Your task to perform on an android device: What's on my calendar tomorrow? Image 0: 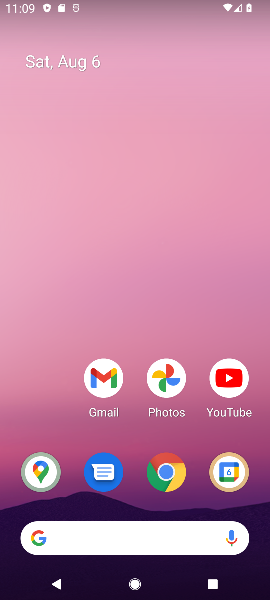
Step 0: drag from (166, 531) to (119, 180)
Your task to perform on an android device: What's on my calendar tomorrow? Image 1: 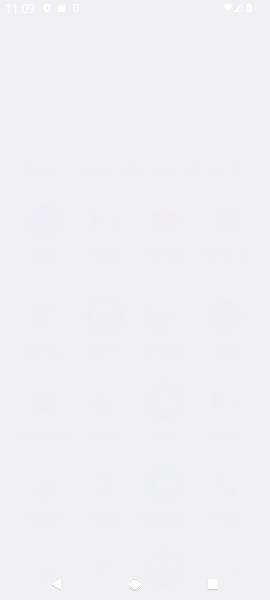
Step 1: drag from (172, 460) to (131, 174)
Your task to perform on an android device: What's on my calendar tomorrow? Image 2: 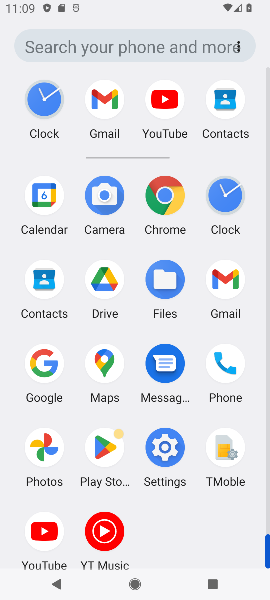
Step 2: click (33, 190)
Your task to perform on an android device: What's on my calendar tomorrow? Image 3: 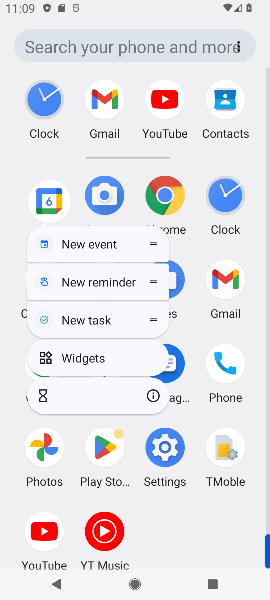
Step 3: click (38, 196)
Your task to perform on an android device: What's on my calendar tomorrow? Image 4: 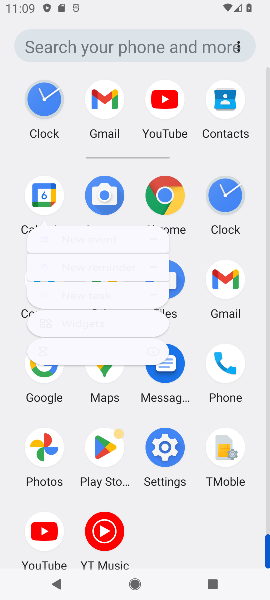
Step 4: click (38, 196)
Your task to perform on an android device: What's on my calendar tomorrow? Image 5: 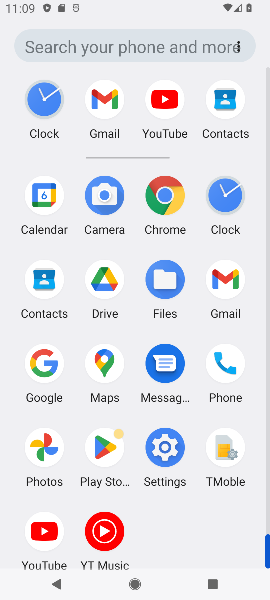
Step 5: click (40, 197)
Your task to perform on an android device: What's on my calendar tomorrow? Image 6: 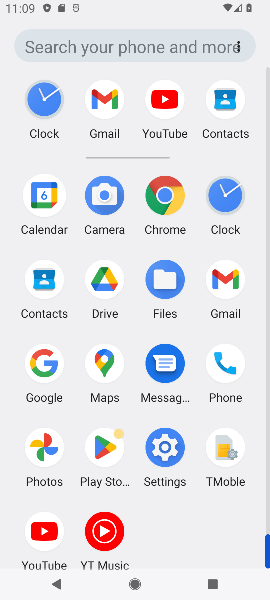
Step 6: click (40, 202)
Your task to perform on an android device: What's on my calendar tomorrow? Image 7: 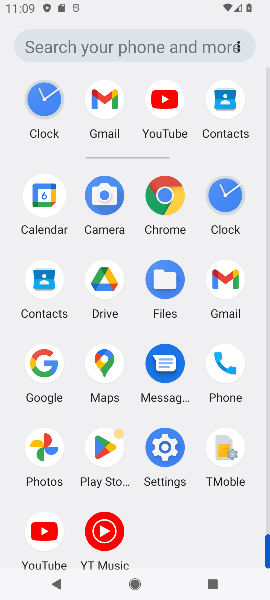
Step 7: click (42, 203)
Your task to perform on an android device: What's on my calendar tomorrow? Image 8: 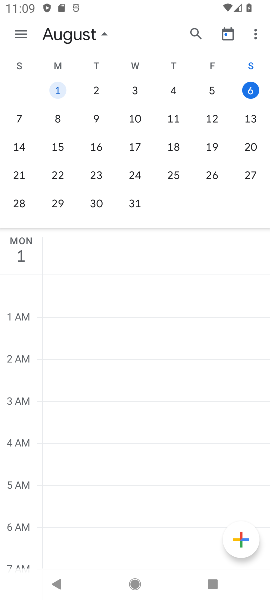
Step 8: click (17, 116)
Your task to perform on an android device: What's on my calendar tomorrow? Image 9: 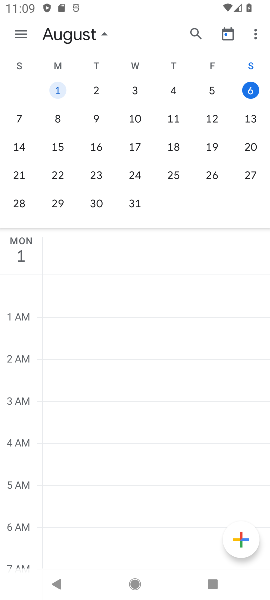
Step 9: click (17, 116)
Your task to perform on an android device: What's on my calendar tomorrow? Image 10: 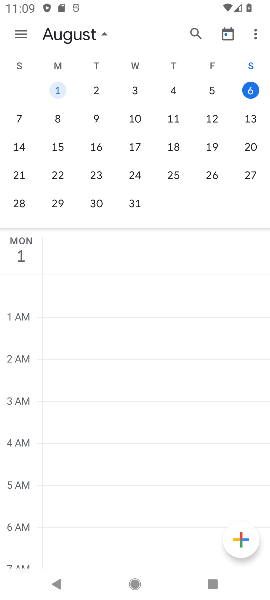
Step 10: click (17, 116)
Your task to perform on an android device: What's on my calendar tomorrow? Image 11: 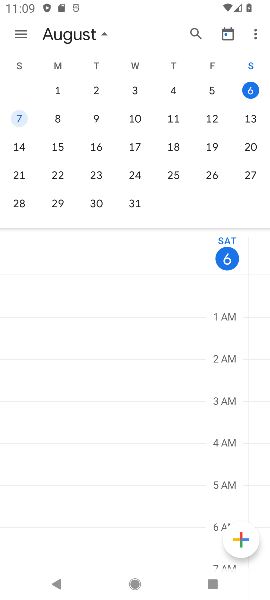
Step 11: click (17, 116)
Your task to perform on an android device: What's on my calendar tomorrow? Image 12: 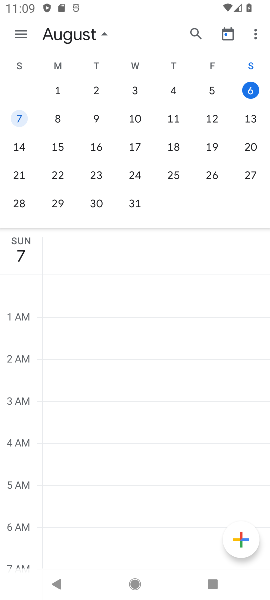
Step 12: task complete